Your task to perform on an android device: Go to ESPN.com Image 0: 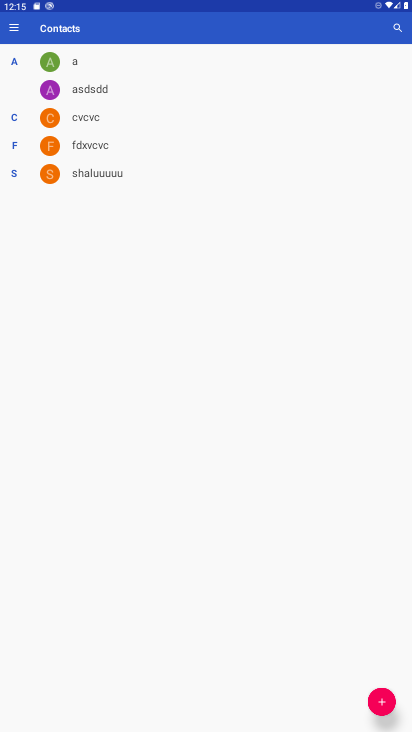
Step 0: press home button
Your task to perform on an android device: Go to ESPN.com Image 1: 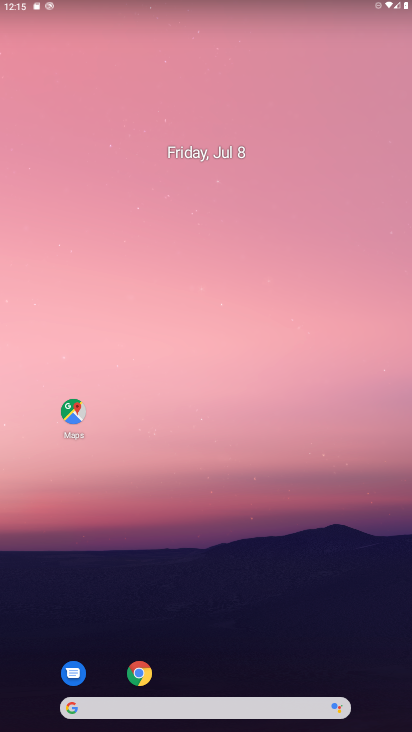
Step 1: click (142, 674)
Your task to perform on an android device: Go to ESPN.com Image 2: 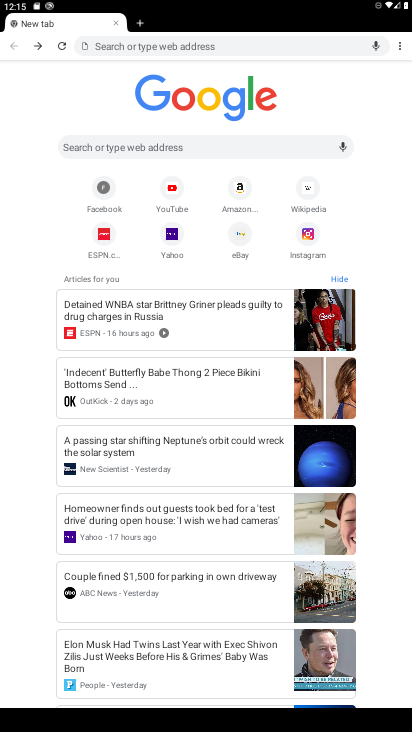
Step 2: click (124, 146)
Your task to perform on an android device: Go to ESPN.com Image 3: 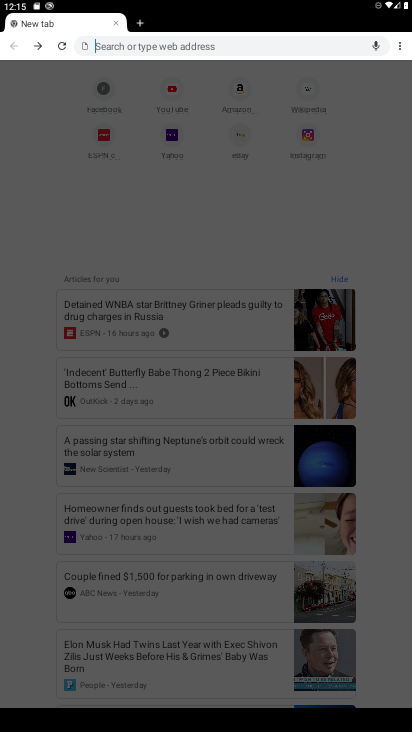
Step 3: type "ESPN.com"
Your task to perform on an android device: Go to ESPN.com Image 4: 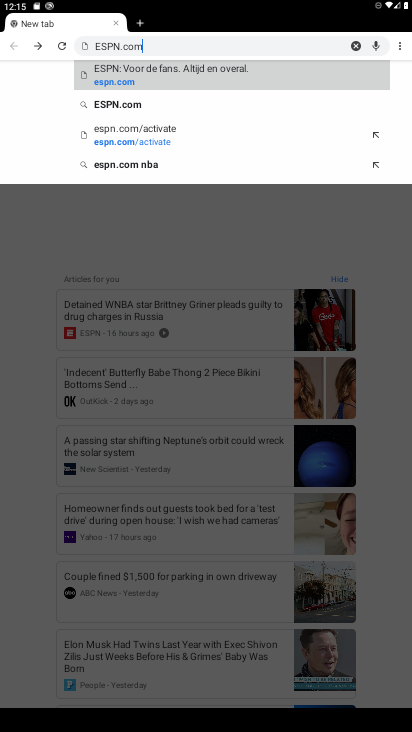
Step 4: click (119, 102)
Your task to perform on an android device: Go to ESPN.com Image 5: 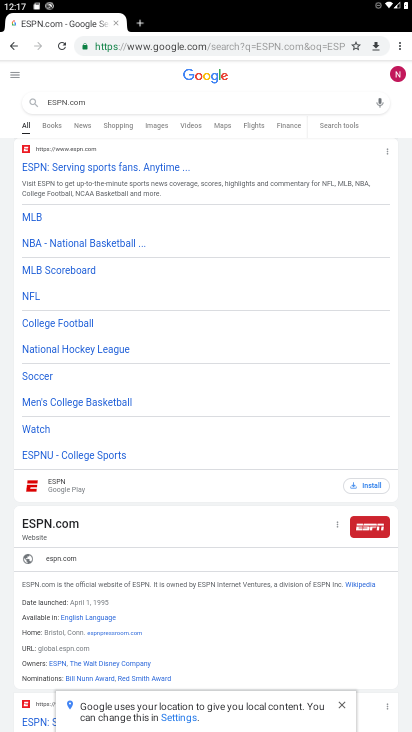
Step 5: task complete